Your task to perform on an android device: find which apps use the phone's location Image 0: 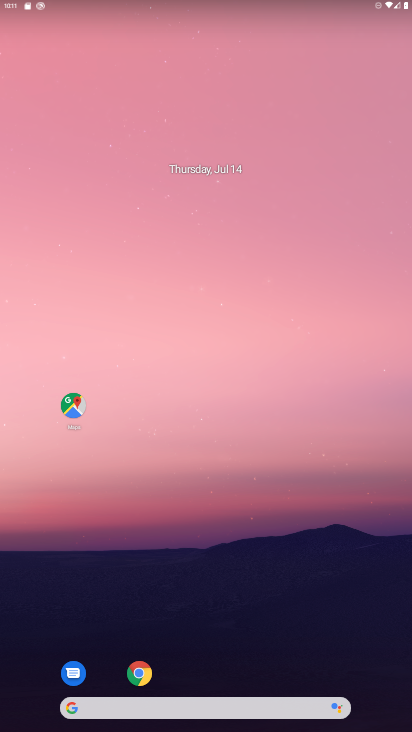
Step 0: drag from (283, 590) to (236, 165)
Your task to perform on an android device: find which apps use the phone's location Image 1: 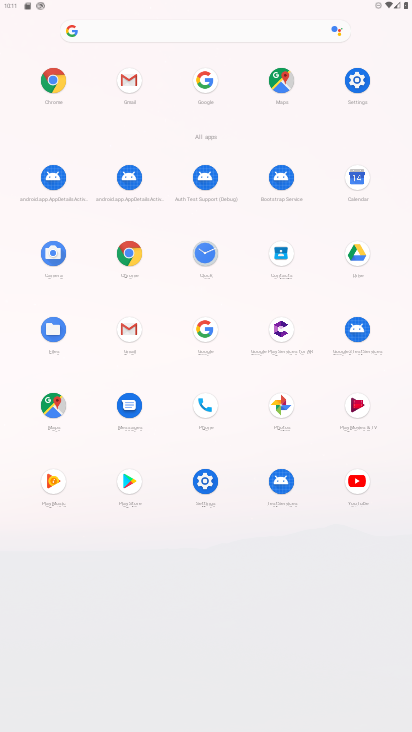
Step 1: click (362, 78)
Your task to perform on an android device: find which apps use the phone's location Image 2: 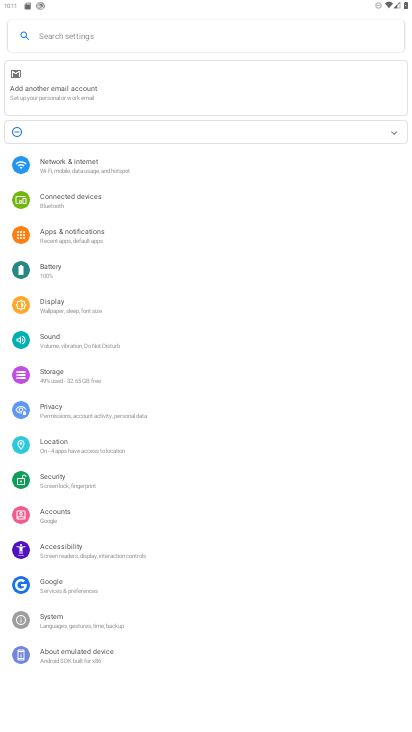
Step 2: click (71, 417)
Your task to perform on an android device: find which apps use the phone's location Image 3: 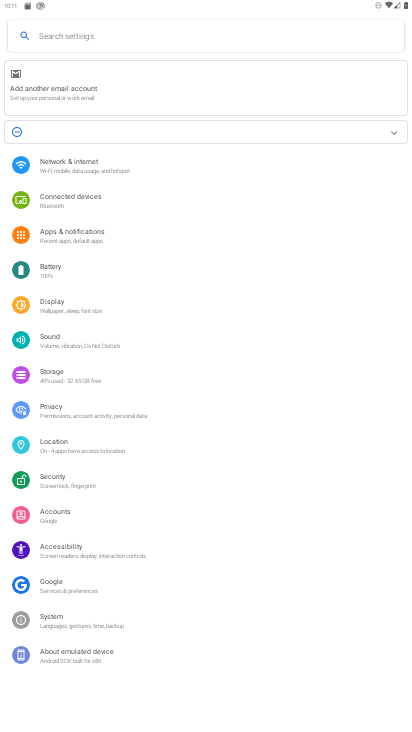
Step 3: click (57, 437)
Your task to perform on an android device: find which apps use the phone's location Image 4: 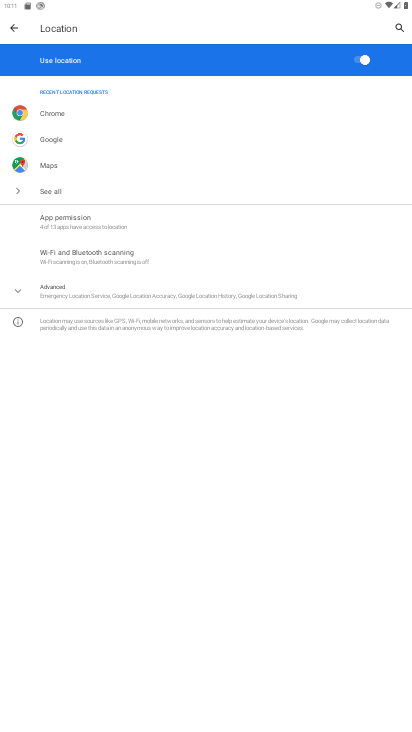
Step 4: task complete